Your task to perform on an android device: move an email to a new category in the gmail app Image 0: 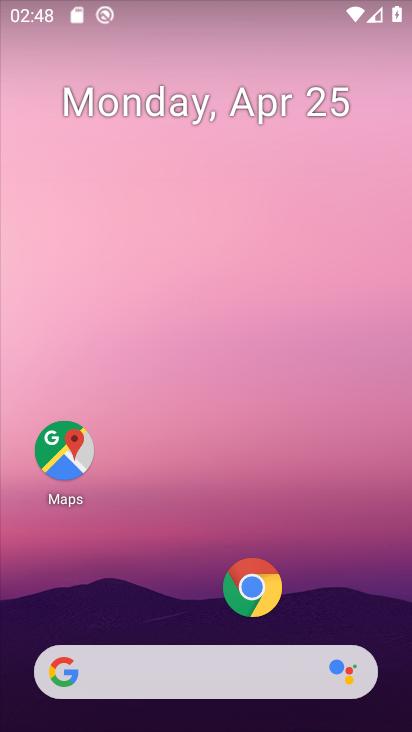
Step 0: drag from (193, 624) to (202, 6)
Your task to perform on an android device: move an email to a new category in the gmail app Image 1: 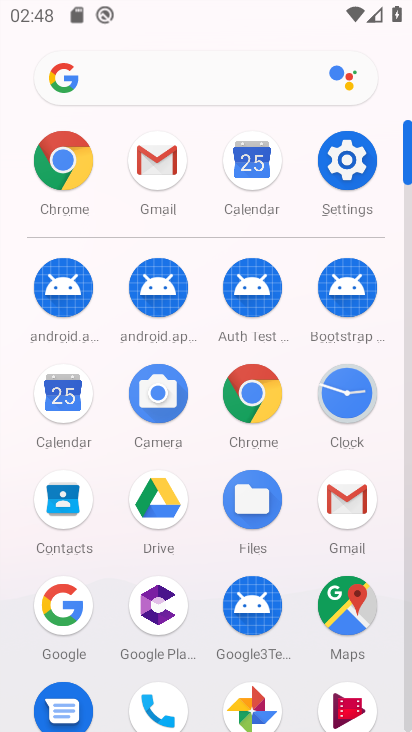
Step 1: click (346, 485)
Your task to perform on an android device: move an email to a new category in the gmail app Image 2: 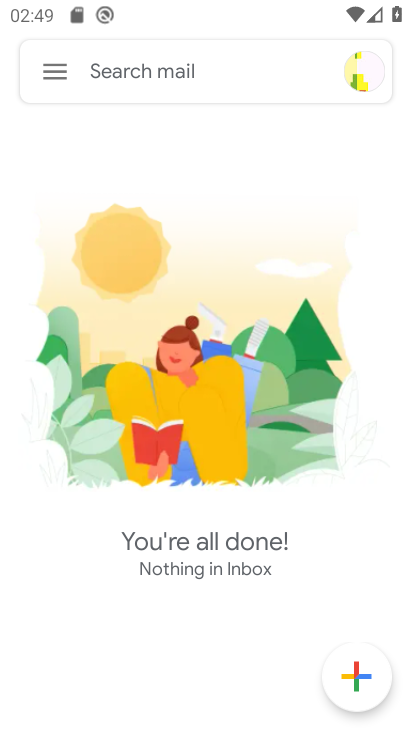
Step 2: click (47, 67)
Your task to perform on an android device: move an email to a new category in the gmail app Image 3: 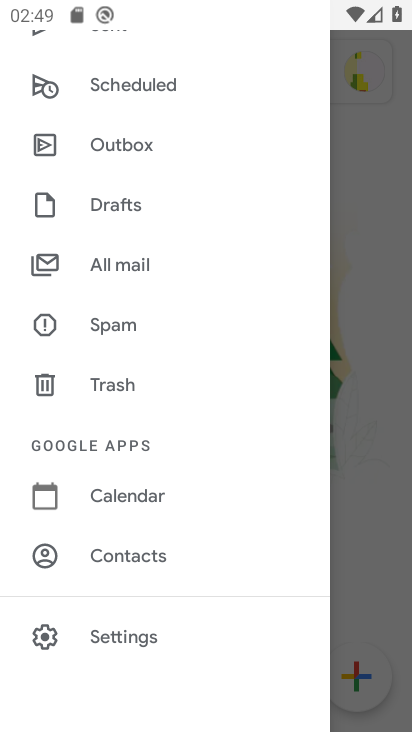
Step 3: click (166, 626)
Your task to perform on an android device: move an email to a new category in the gmail app Image 4: 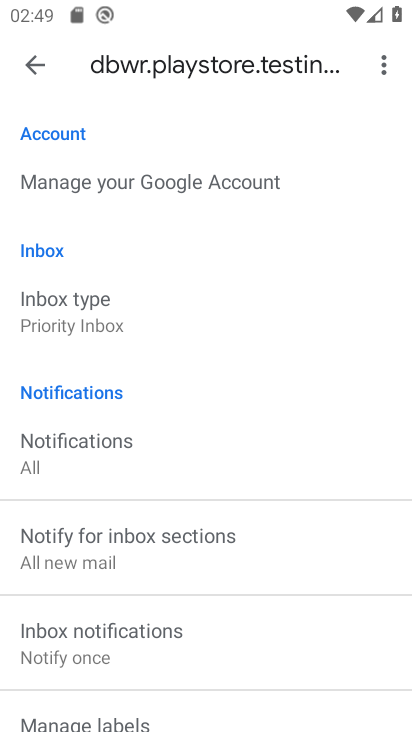
Step 4: click (37, 62)
Your task to perform on an android device: move an email to a new category in the gmail app Image 5: 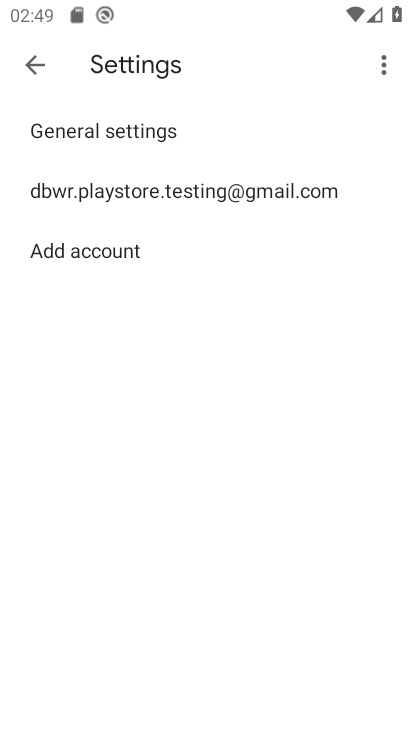
Step 5: click (35, 72)
Your task to perform on an android device: move an email to a new category in the gmail app Image 6: 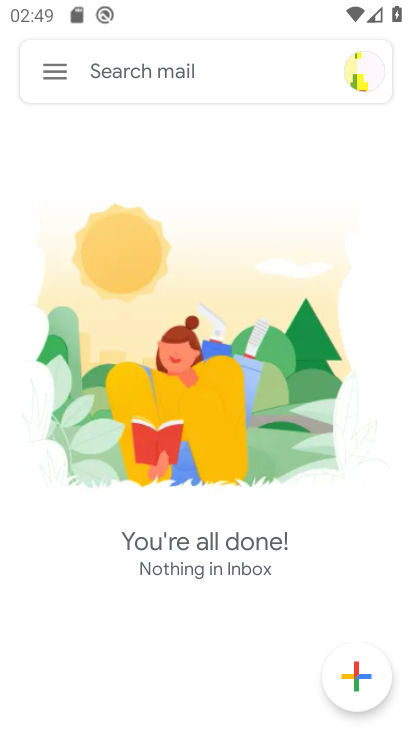
Step 6: click (59, 76)
Your task to perform on an android device: move an email to a new category in the gmail app Image 7: 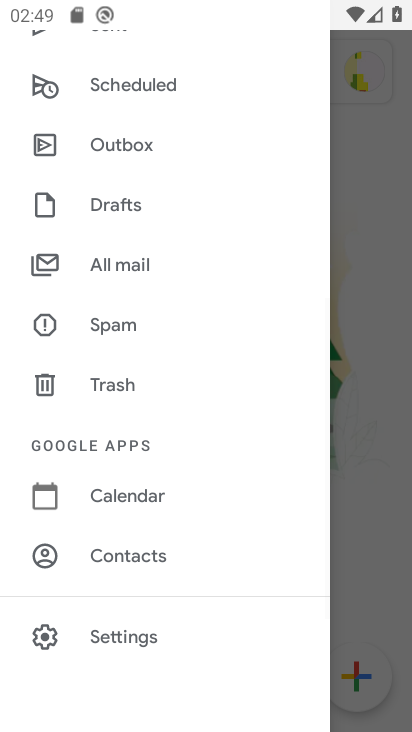
Step 7: click (157, 258)
Your task to perform on an android device: move an email to a new category in the gmail app Image 8: 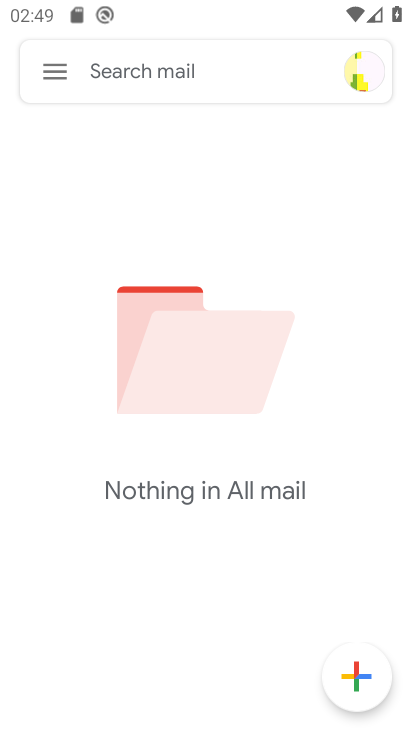
Step 8: task complete